Your task to perform on an android device: set the stopwatch Image 0: 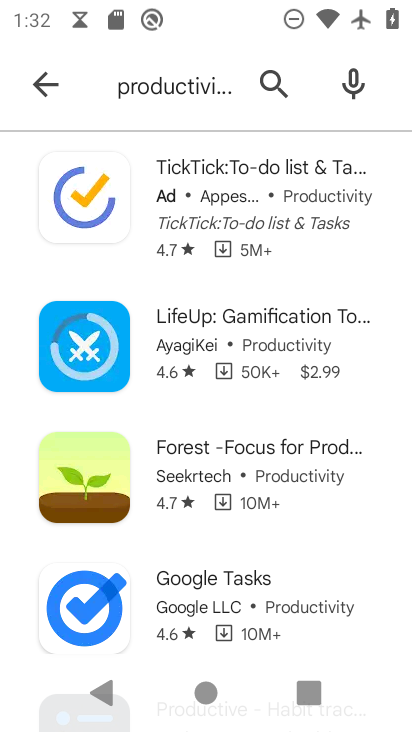
Step 0: press home button
Your task to perform on an android device: set the stopwatch Image 1: 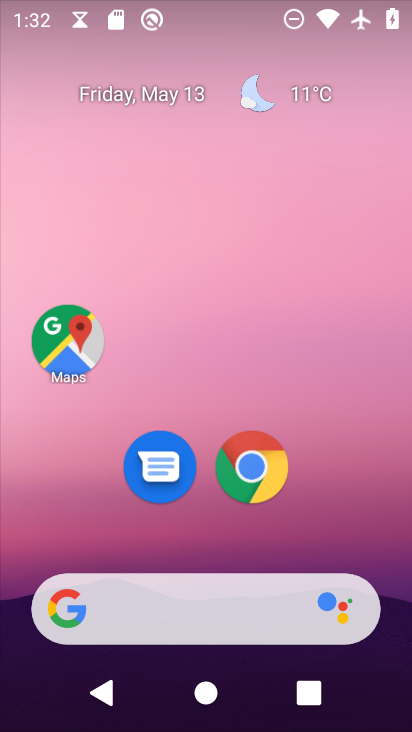
Step 1: drag from (315, 387) to (221, 30)
Your task to perform on an android device: set the stopwatch Image 2: 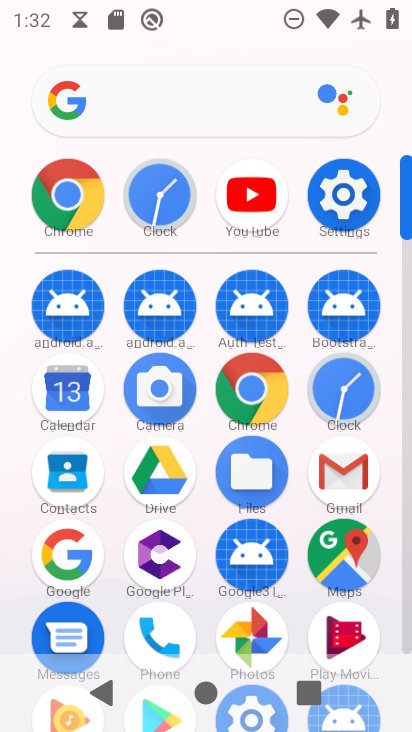
Step 2: click (344, 401)
Your task to perform on an android device: set the stopwatch Image 3: 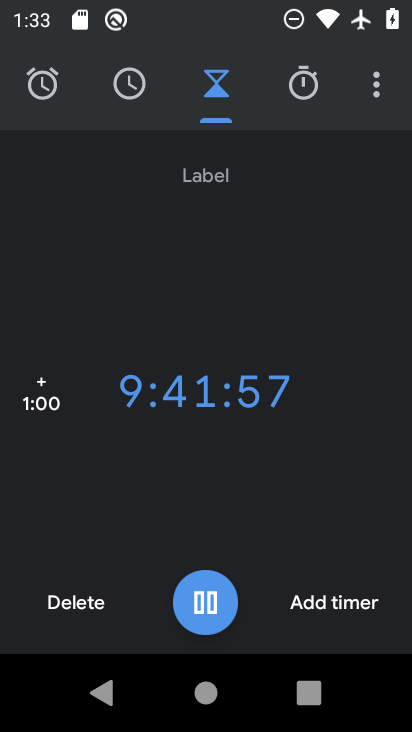
Step 3: click (309, 84)
Your task to perform on an android device: set the stopwatch Image 4: 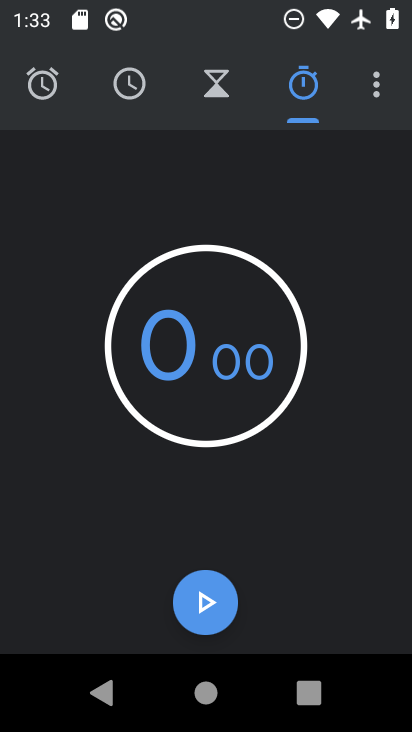
Step 4: click (194, 605)
Your task to perform on an android device: set the stopwatch Image 5: 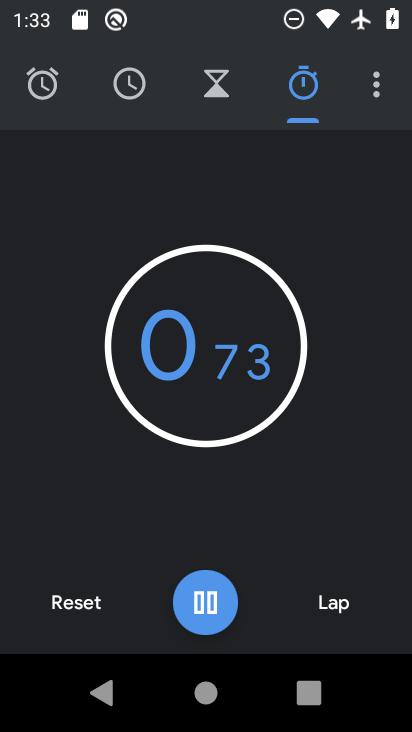
Step 5: task complete